Your task to perform on an android device: Show me productivity apps on the Play Store Image 0: 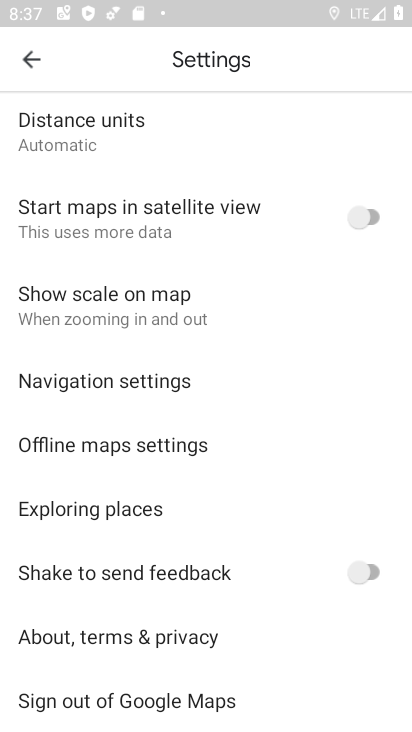
Step 0: press home button
Your task to perform on an android device: Show me productivity apps on the Play Store Image 1: 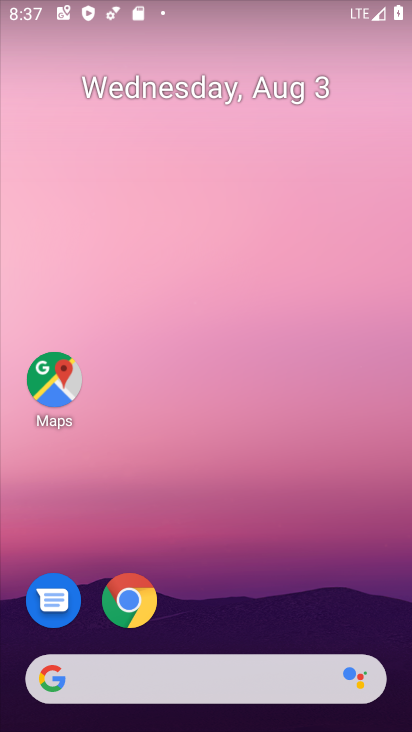
Step 1: drag from (220, 604) to (203, 67)
Your task to perform on an android device: Show me productivity apps on the Play Store Image 2: 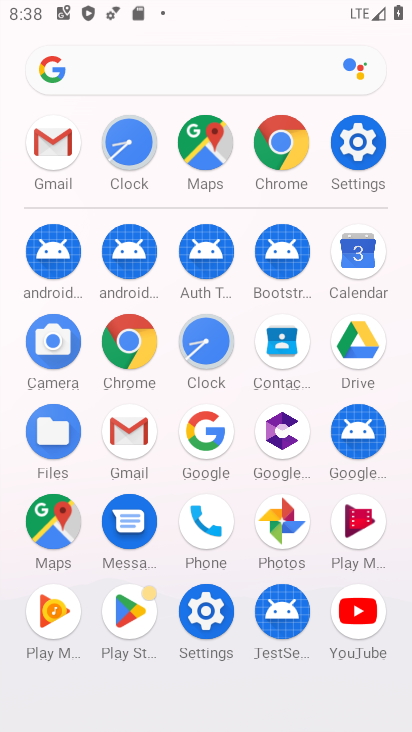
Step 2: click (122, 632)
Your task to perform on an android device: Show me productivity apps on the Play Store Image 3: 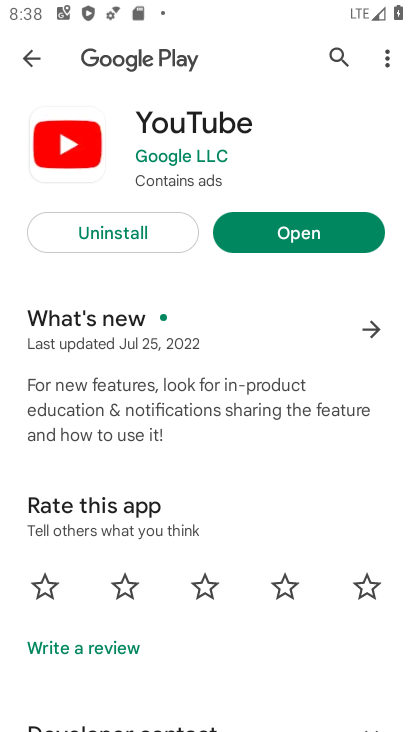
Step 3: click (29, 61)
Your task to perform on an android device: Show me productivity apps on the Play Store Image 4: 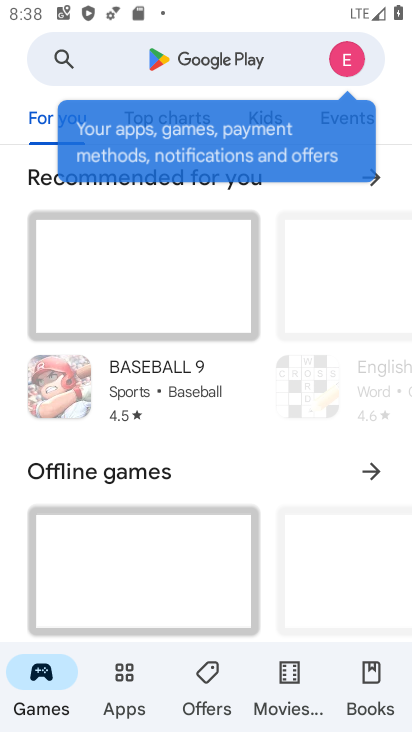
Step 4: click (122, 694)
Your task to perform on an android device: Show me productivity apps on the Play Store Image 5: 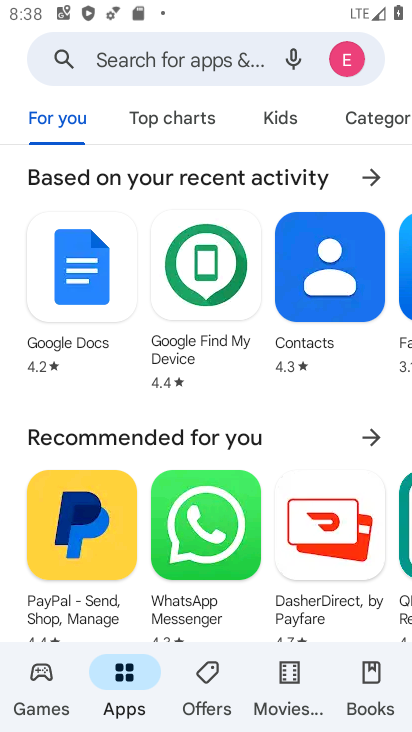
Step 5: click (372, 115)
Your task to perform on an android device: Show me productivity apps on the Play Store Image 6: 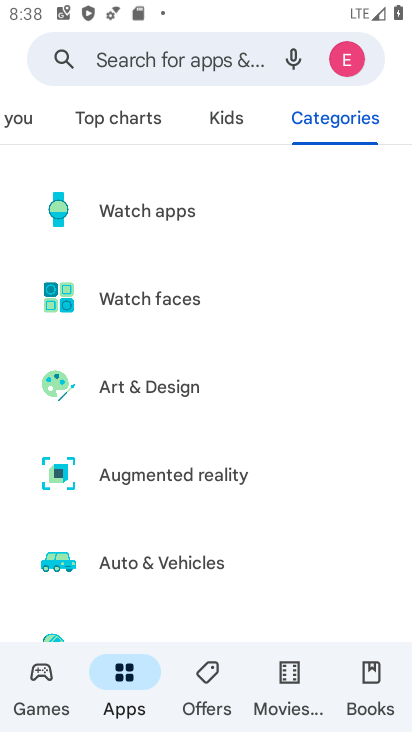
Step 6: drag from (134, 564) to (177, 121)
Your task to perform on an android device: Show me productivity apps on the Play Store Image 7: 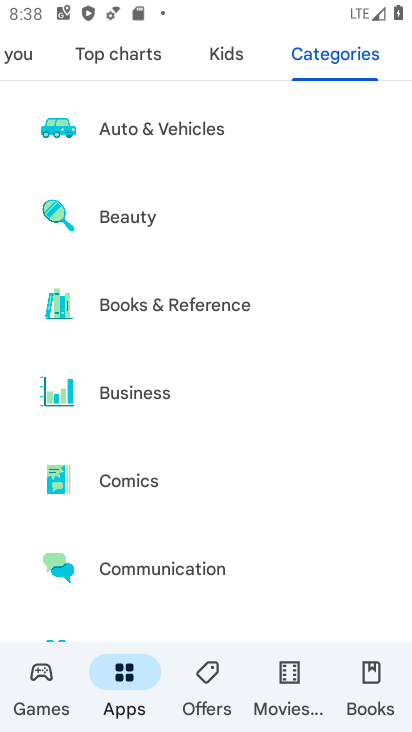
Step 7: drag from (167, 497) to (212, 159)
Your task to perform on an android device: Show me productivity apps on the Play Store Image 8: 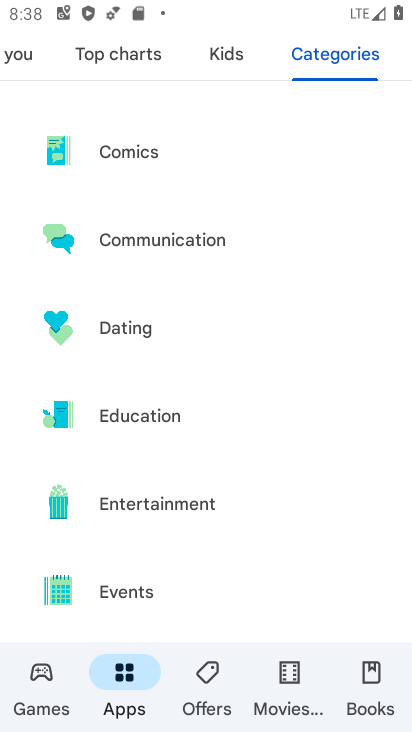
Step 8: drag from (171, 583) to (197, 68)
Your task to perform on an android device: Show me productivity apps on the Play Store Image 9: 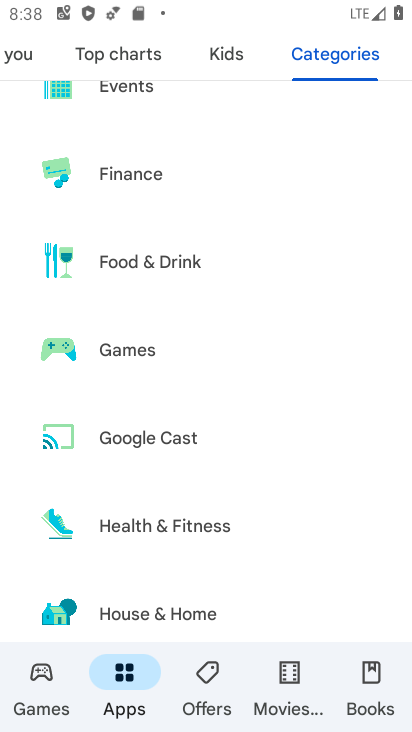
Step 9: drag from (185, 532) to (200, 184)
Your task to perform on an android device: Show me productivity apps on the Play Store Image 10: 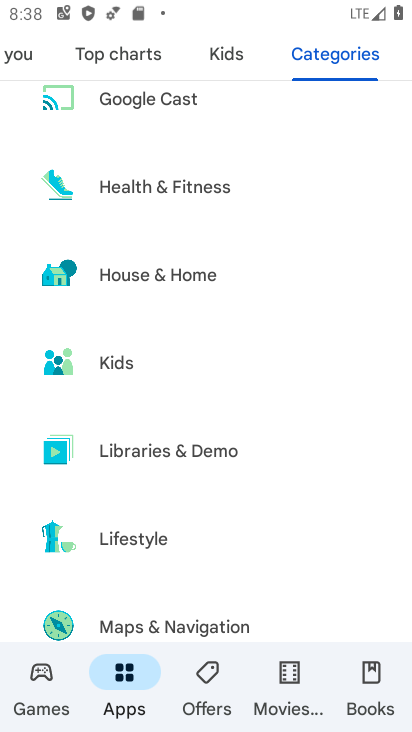
Step 10: drag from (169, 560) to (220, 161)
Your task to perform on an android device: Show me productivity apps on the Play Store Image 11: 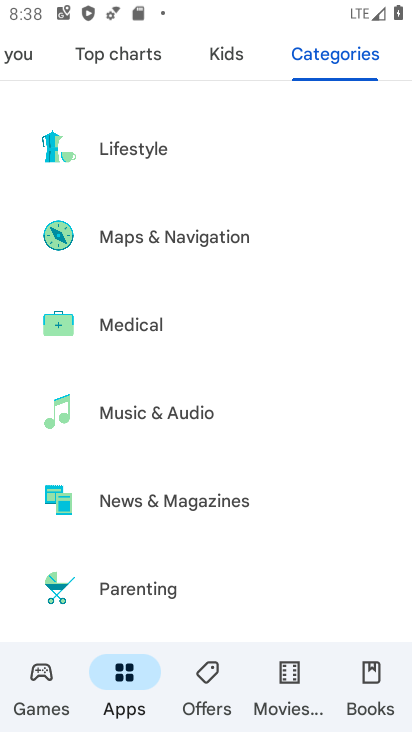
Step 11: drag from (185, 543) to (235, 110)
Your task to perform on an android device: Show me productivity apps on the Play Store Image 12: 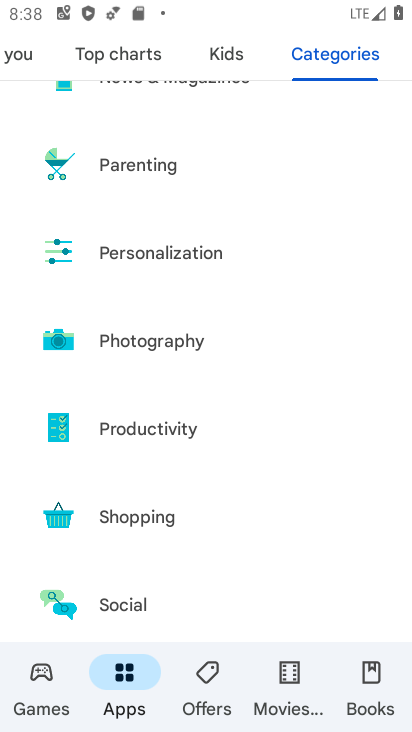
Step 12: click (177, 441)
Your task to perform on an android device: Show me productivity apps on the Play Store Image 13: 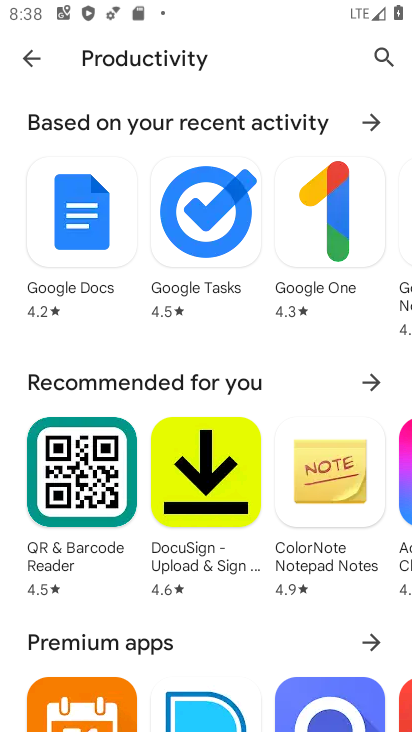
Step 13: task complete